Your task to perform on an android device: visit the assistant section in the google photos Image 0: 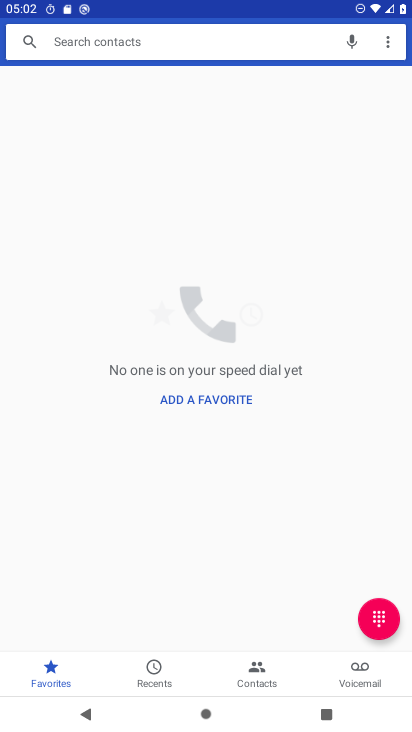
Step 0: click (145, 74)
Your task to perform on an android device: visit the assistant section in the google photos Image 1: 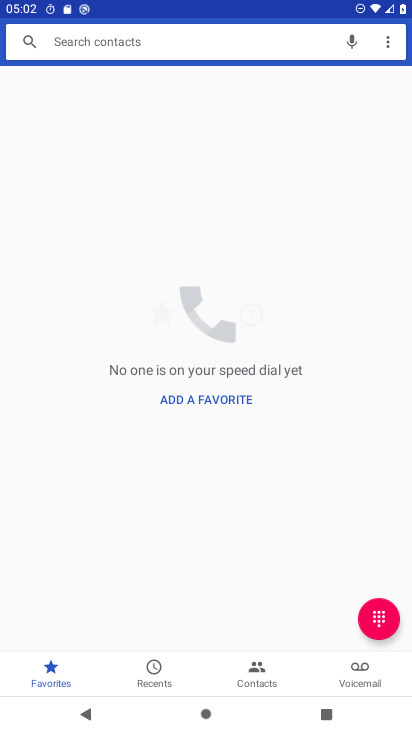
Step 1: press home button
Your task to perform on an android device: visit the assistant section in the google photos Image 2: 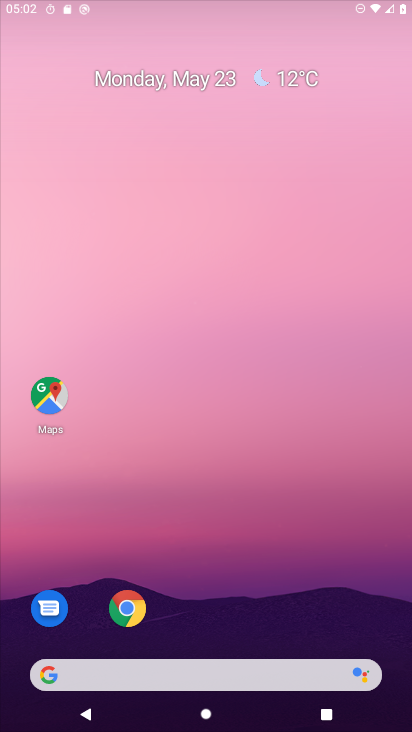
Step 2: drag from (328, 581) to (177, 11)
Your task to perform on an android device: visit the assistant section in the google photos Image 3: 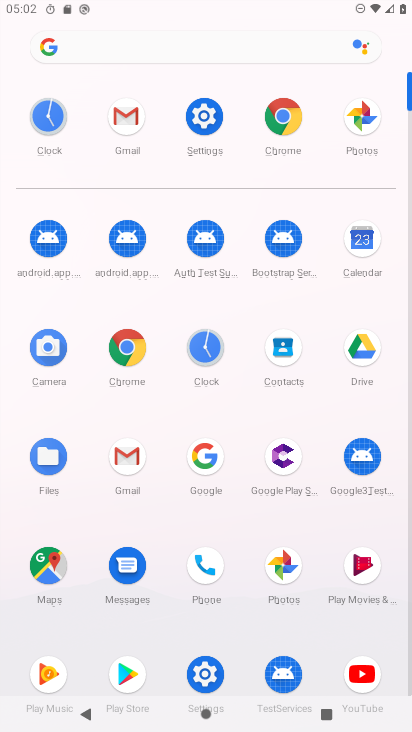
Step 3: click (282, 544)
Your task to perform on an android device: visit the assistant section in the google photos Image 4: 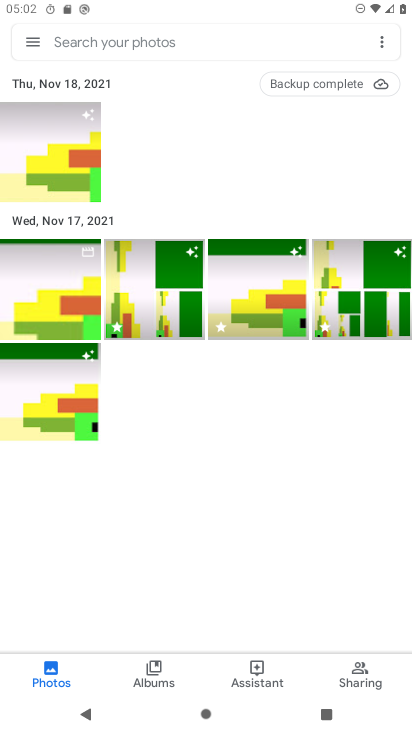
Step 4: click (275, 680)
Your task to perform on an android device: visit the assistant section in the google photos Image 5: 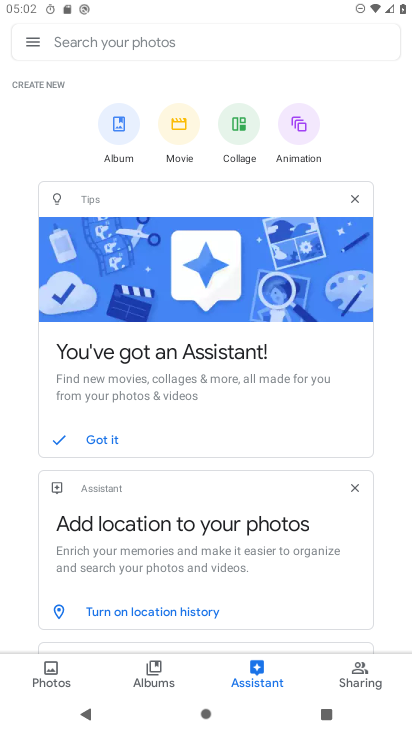
Step 5: task complete